Your task to perform on an android device: Show me productivity apps on the Play Store Image 0: 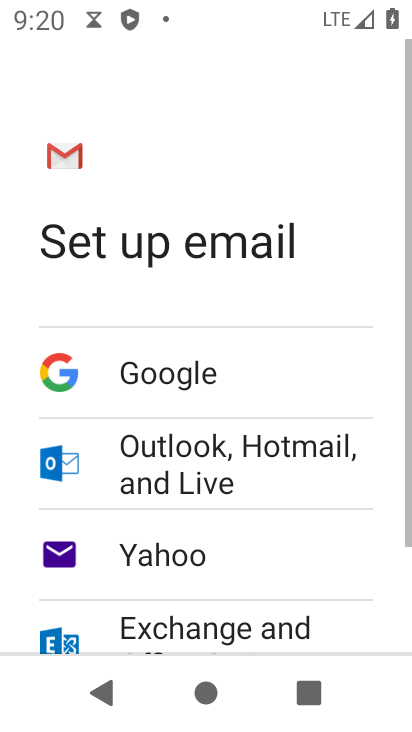
Step 0: press home button
Your task to perform on an android device: Show me productivity apps on the Play Store Image 1: 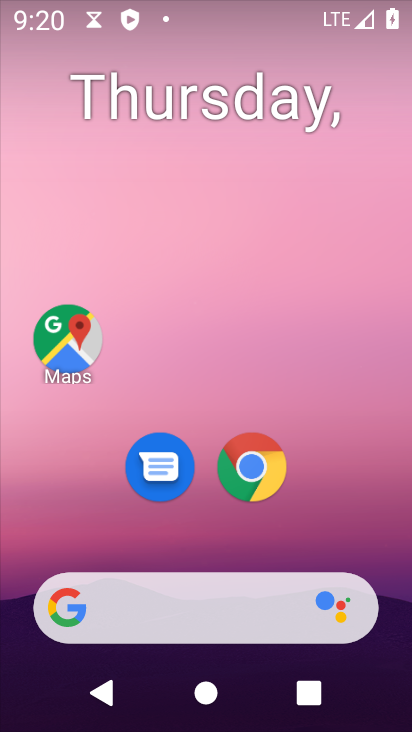
Step 1: drag from (316, 539) to (327, 55)
Your task to perform on an android device: Show me productivity apps on the Play Store Image 2: 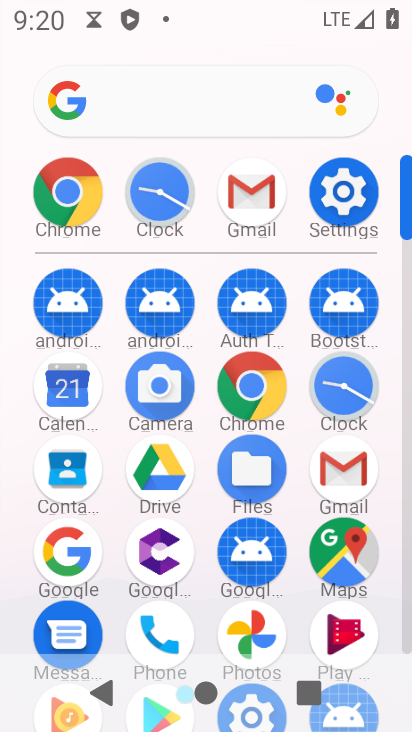
Step 2: drag from (205, 595) to (270, 380)
Your task to perform on an android device: Show me productivity apps on the Play Store Image 3: 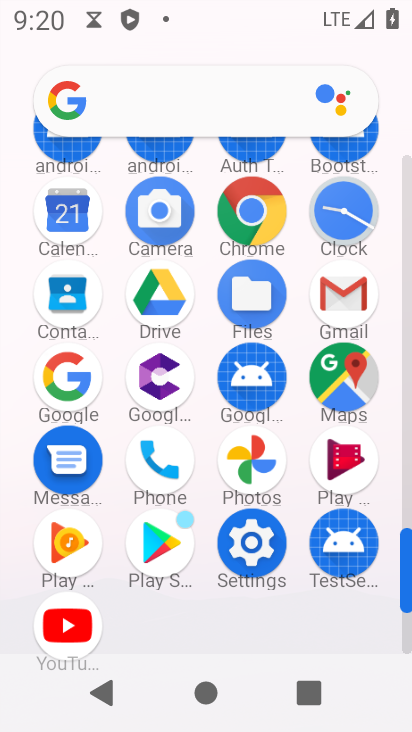
Step 3: click (165, 530)
Your task to perform on an android device: Show me productivity apps on the Play Store Image 4: 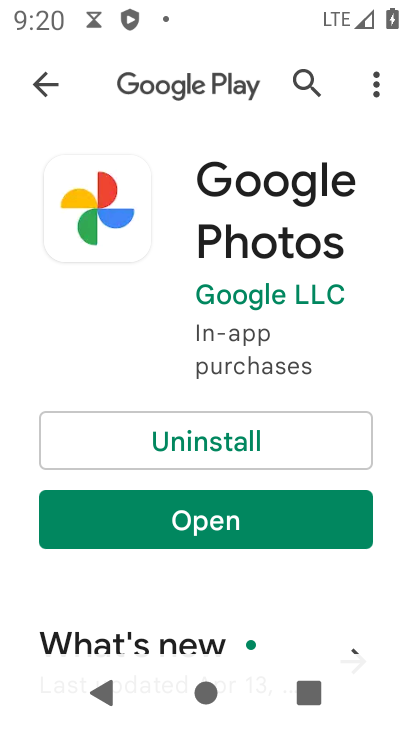
Step 4: click (33, 97)
Your task to perform on an android device: Show me productivity apps on the Play Store Image 5: 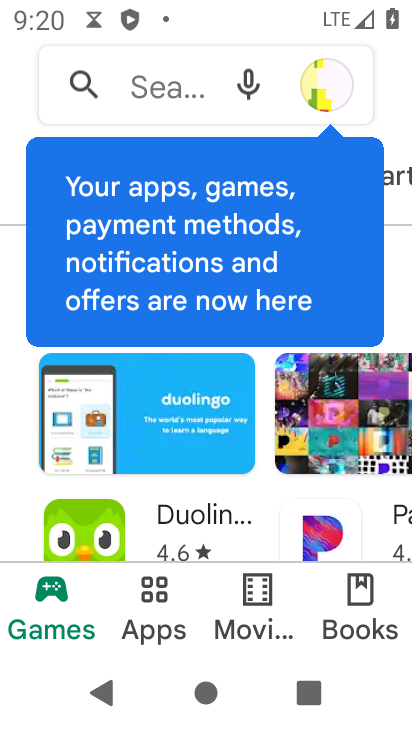
Step 5: click (133, 621)
Your task to perform on an android device: Show me productivity apps on the Play Store Image 6: 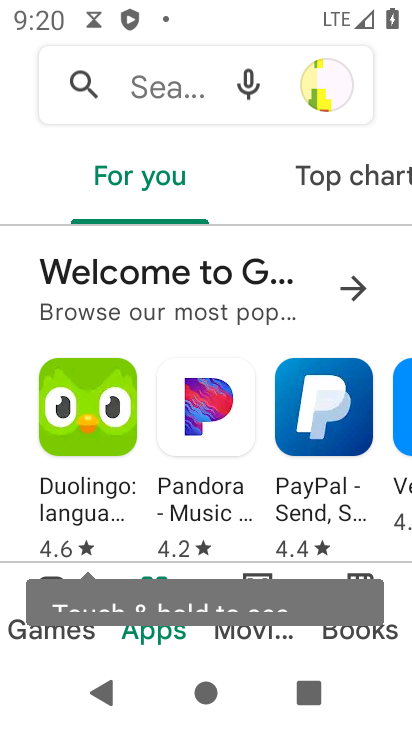
Step 6: drag from (390, 187) to (81, 195)
Your task to perform on an android device: Show me productivity apps on the Play Store Image 7: 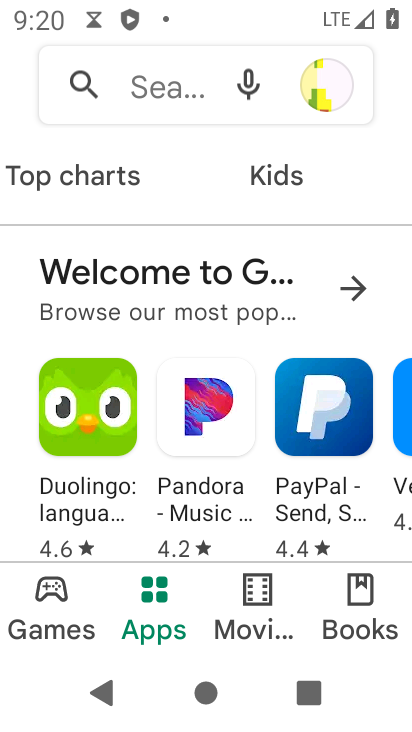
Step 7: drag from (351, 172) to (5, 151)
Your task to perform on an android device: Show me productivity apps on the Play Store Image 8: 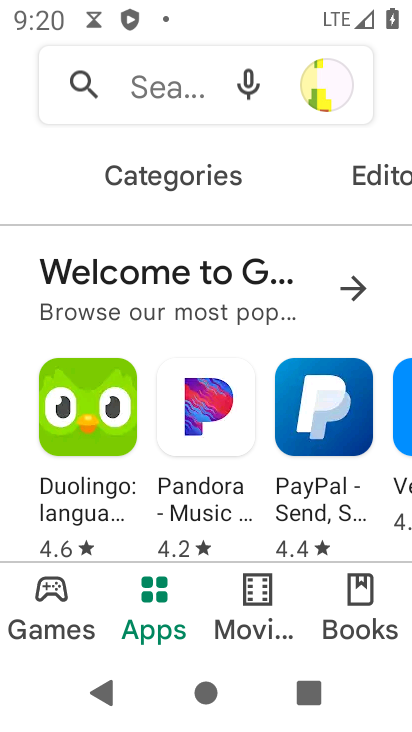
Step 8: click (170, 171)
Your task to perform on an android device: Show me productivity apps on the Play Store Image 9: 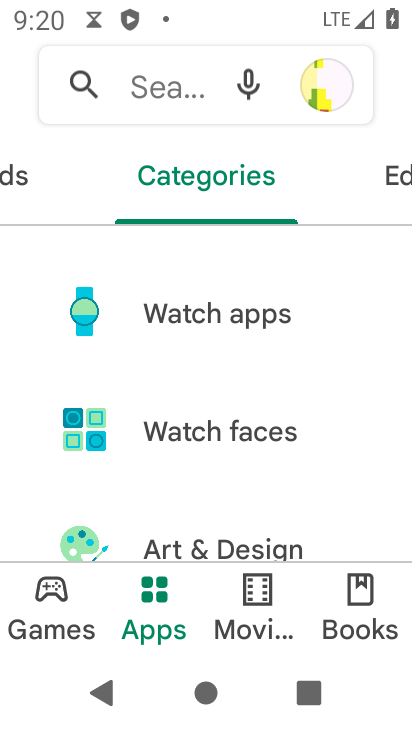
Step 9: drag from (175, 486) to (173, 375)
Your task to perform on an android device: Show me productivity apps on the Play Store Image 10: 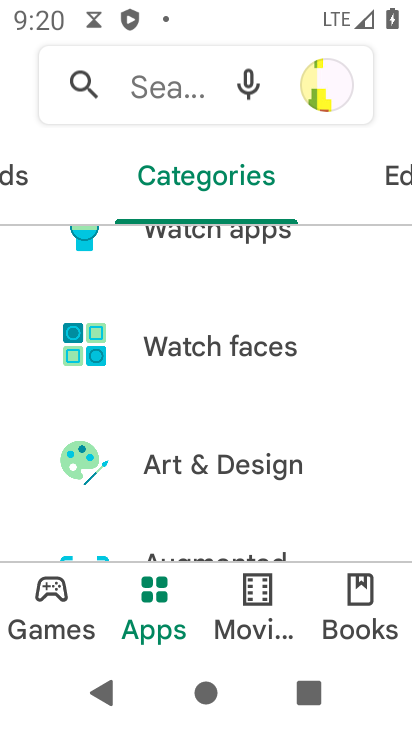
Step 10: drag from (162, 492) to (162, 409)
Your task to perform on an android device: Show me productivity apps on the Play Store Image 11: 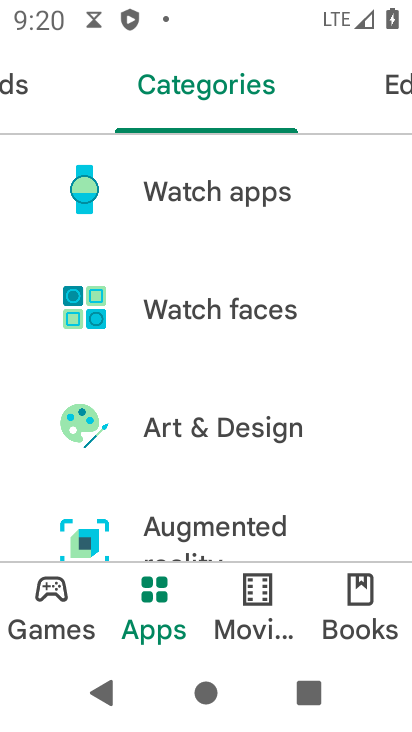
Step 11: drag from (150, 502) to (162, 404)
Your task to perform on an android device: Show me productivity apps on the Play Store Image 12: 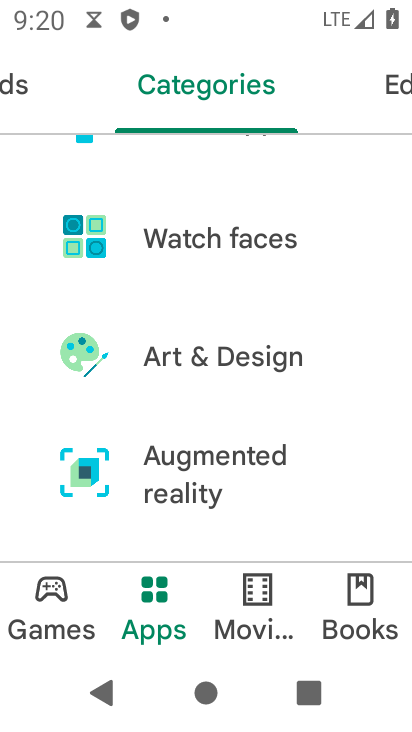
Step 12: drag from (159, 487) to (169, 407)
Your task to perform on an android device: Show me productivity apps on the Play Store Image 13: 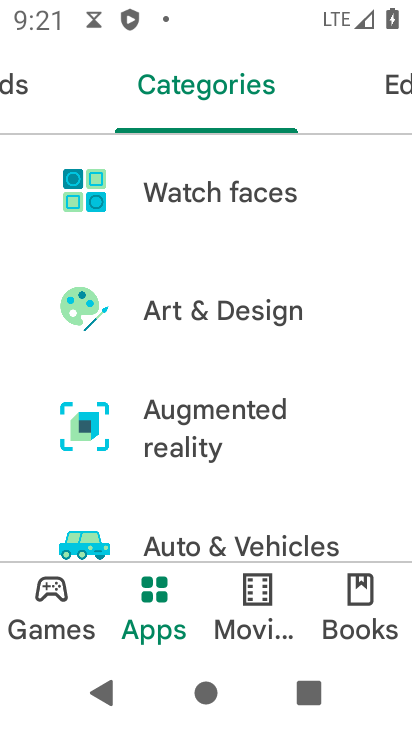
Step 13: drag from (204, 458) to (226, 346)
Your task to perform on an android device: Show me productivity apps on the Play Store Image 14: 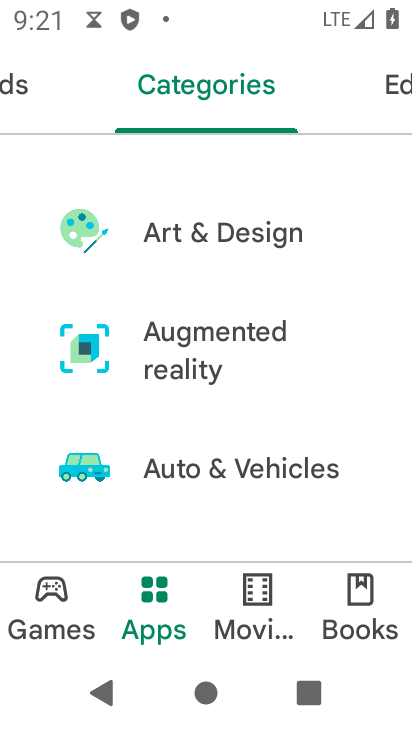
Step 14: drag from (233, 411) to (242, 320)
Your task to perform on an android device: Show me productivity apps on the Play Store Image 15: 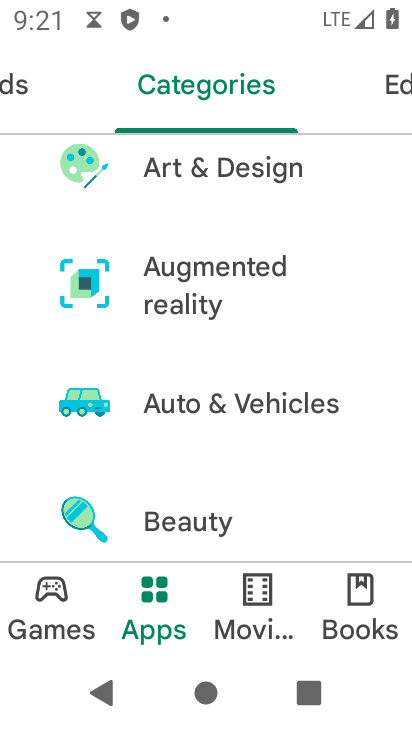
Step 15: drag from (230, 432) to (254, 324)
Your task to perform on an android device: Show me productivity apps on the Play Store Image 16: 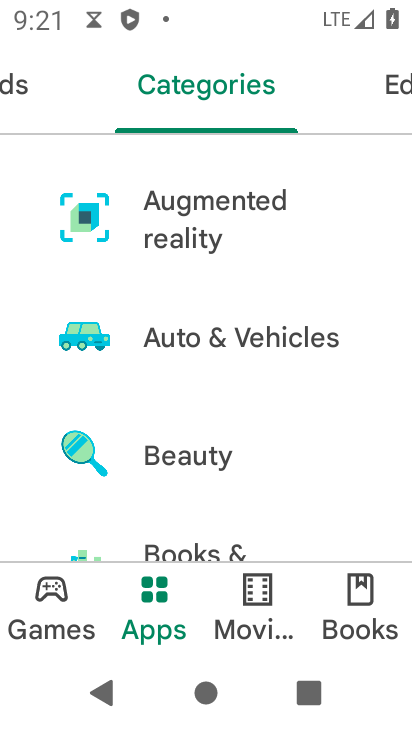
Step 16: drag from (205, 440) to (211, 360)
Your task to perform on an android device: Show me productivity apps on the Play Store Image 17: 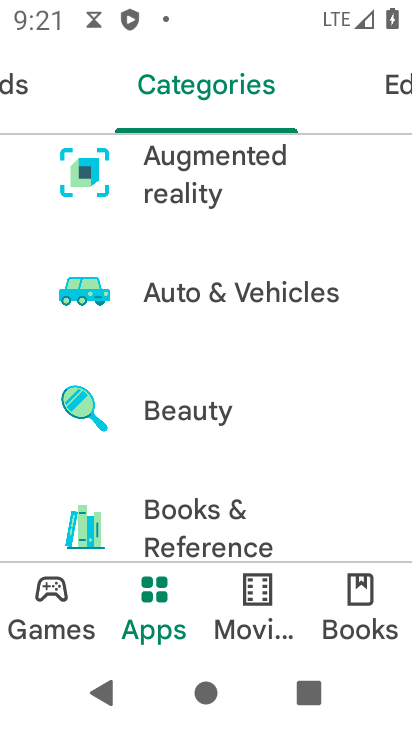
Step 17: drag from (217, 476) to (224, 386)
Your task to perform on an android device: Show me productivity apps on the Play Store Image 18: 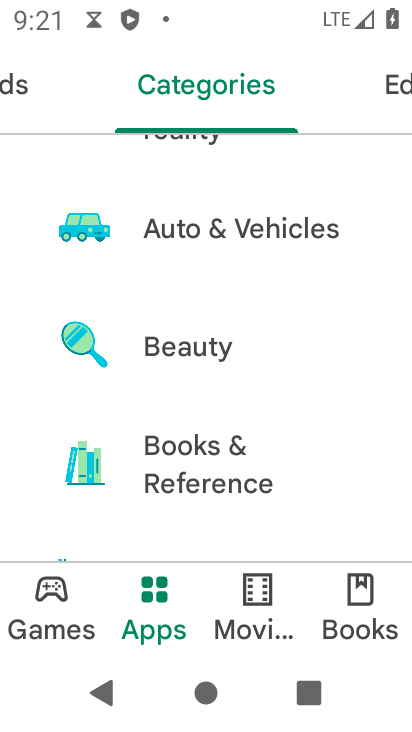
Step 18: drag from (143, 507) to (185, 332)
Your task to perform on an android device: Show me productivity apps on the Play Store Image 19: 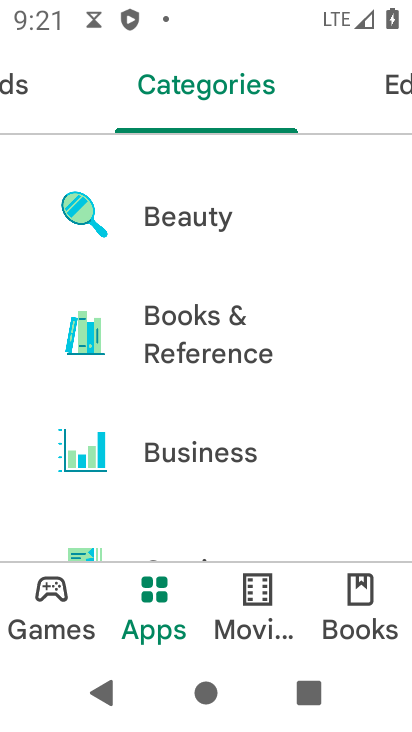
Step 19: drag from (240, 466) to (232, 302)
Your task to perform on an android device: Show me productivity apps on the Play Store Image 20: 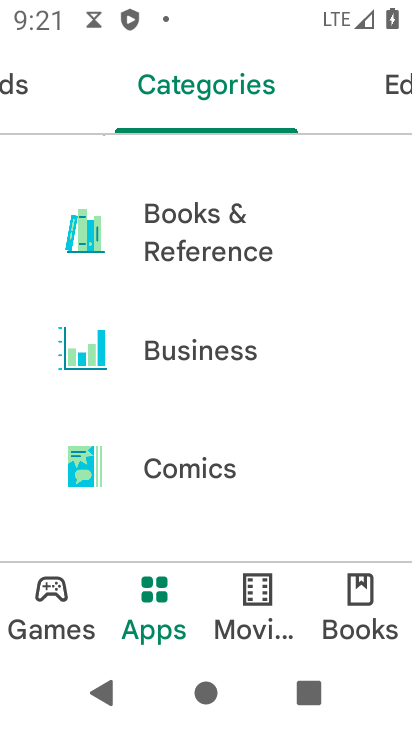
Step 20: drag from (230, 424) to (257, 314)
Your task to perform on an android device: Show me productivity apps on the Play Store Image 21: 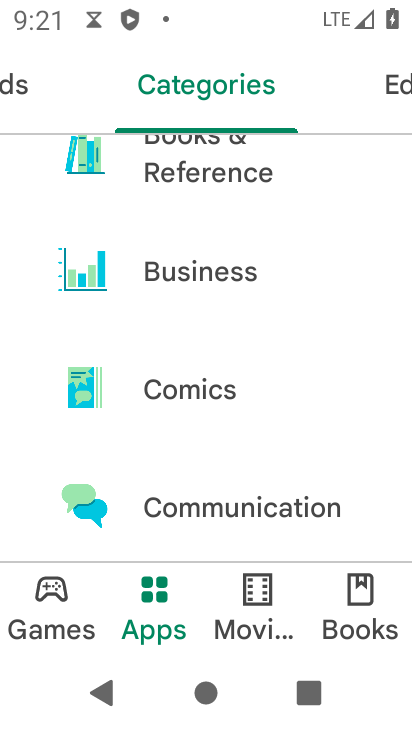
Step 21: drag from (214, 441) to (223, 334)
Your task to perform on an android device: Show me productivity apps on the Play Store Image 22: 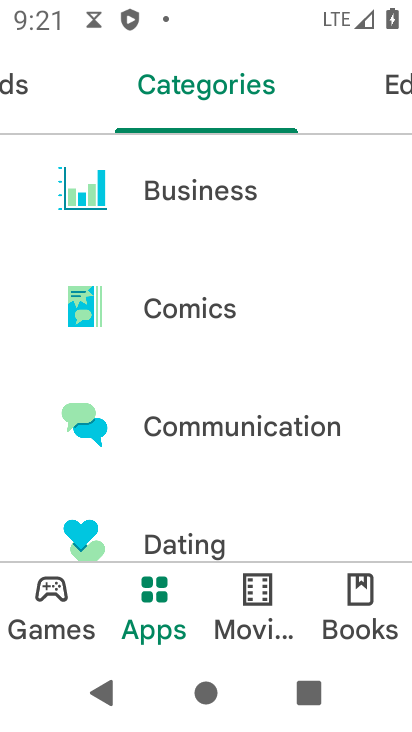
Step 22: drag from (244, 460) to (255, 350)
Your task to perform on an android device: Show me productivity apps on the Play Store Image 23: 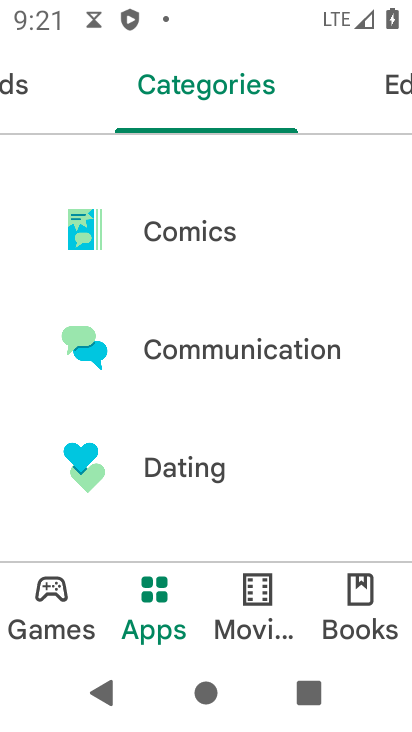
Step 23: drag from (221, 441) to (237, 342)
Your task to perform on an android device: Show me productivity apps on the Play Store Image 24: 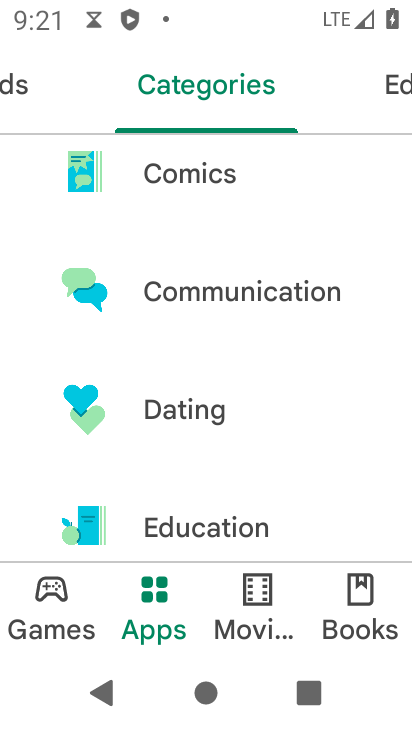
Step 24: drag from (201, 435) to (207, 347)
Your task to perform on an android device: Show me productivity apps on the Play Store Image 25: 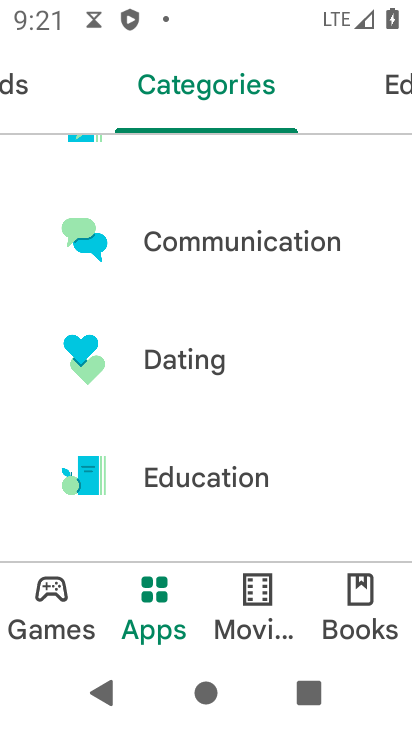
Step 25: drag from (191, 429) to (213, 347)
Your task to perform on an android device: Show me productivity apps on the Play Store Image 26: 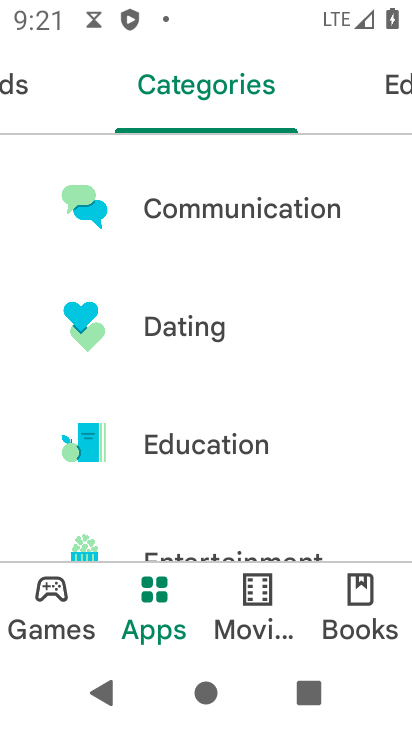
Step 26: drag from (191, 434) to (202, 351)
Your task to perform on an android device: Show me productivity apps on the Play Store Image 27: 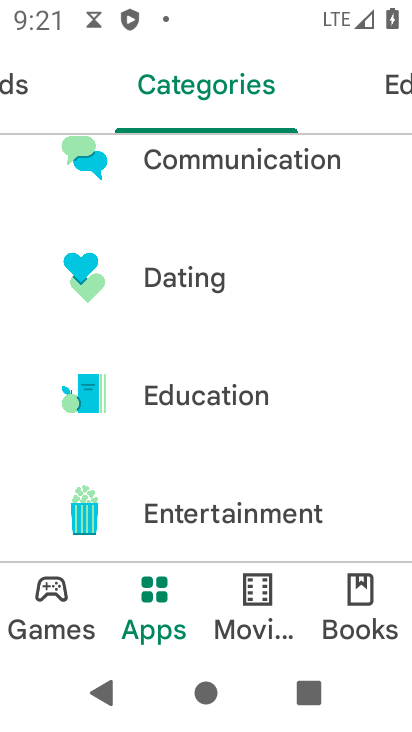
Step 27: drag from (201, 431) to (226, 353)
Your task to perform on an android device: Show me productivity apps on the Play Store Image 28: 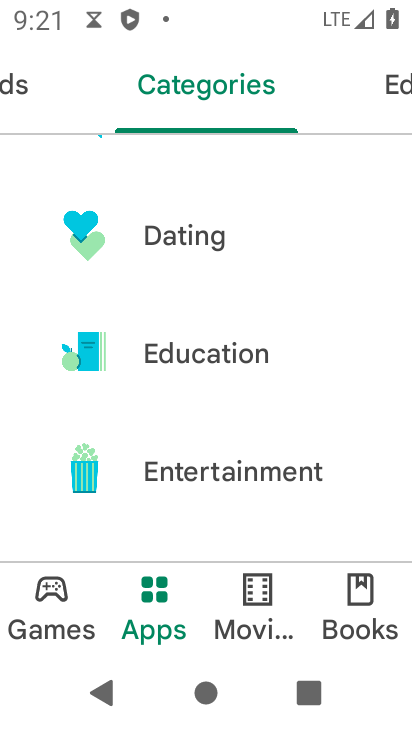
Step 28: drag from (218, 414) to (224, 354)
Your task to perform on an android device: Show me productivity apps on the Play Store Image 29: 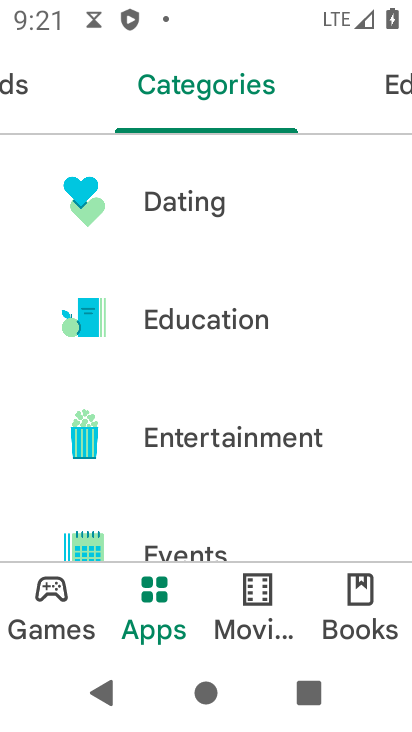
Step 29: drag from (201, 424) to (222, 331)
Your task to perform on an android device: Show me productivity apps on the Play Store Image 30: 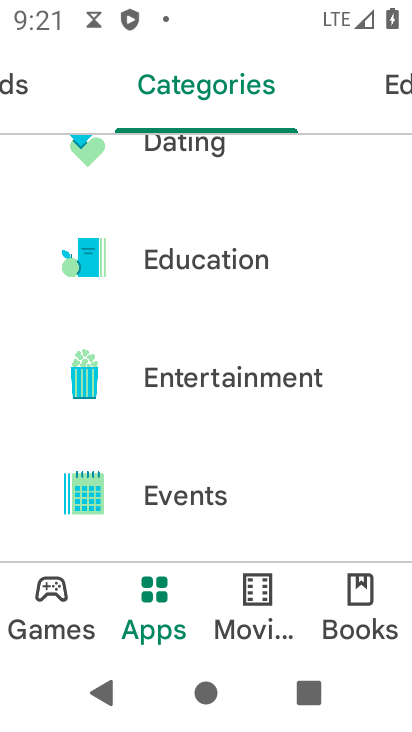
Step 30: drag from (195, 420) to (214, 333)
Your task to perform on an android device: Show me productivity apps on the Play Store Image 31: 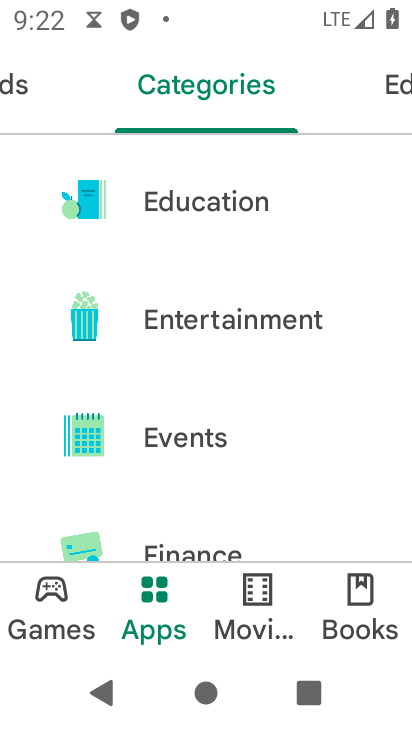
Step 31: drag from (196, 422) to (222, 329)
Your task to perform on an android device: Show me productivity apps on the Play Store Image 32: 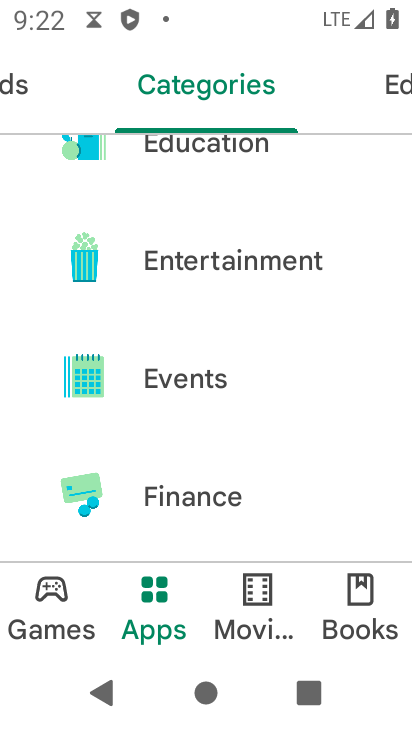
Step 32: drag from (214, 416) to (236, 342)
Your task to perform on an android device: Show me productivity apps on the Play Store Image 33: 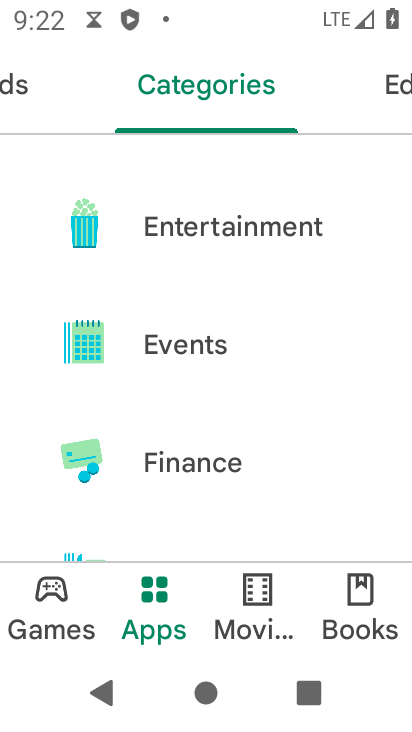
Step 33: drag from (220, 429) to (235, 344)
Your task to perform on an android device: Show me productivity apps on the Play Store Image 34: 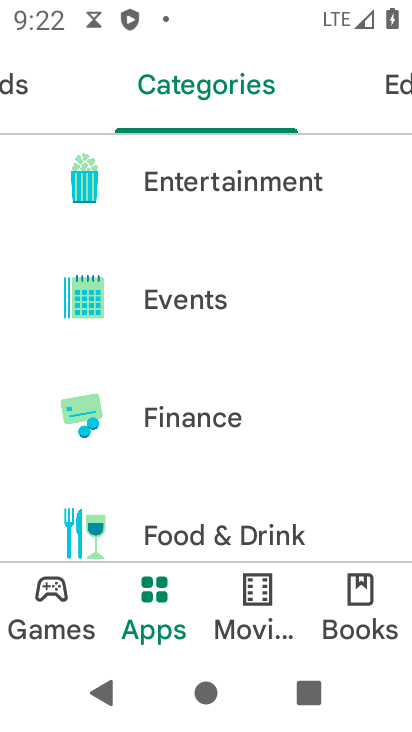
Step 34: drag from (209, 445) to (228, 356)
Your task to perform on an android device: Show me productivity apps on the Play Store Image 35: 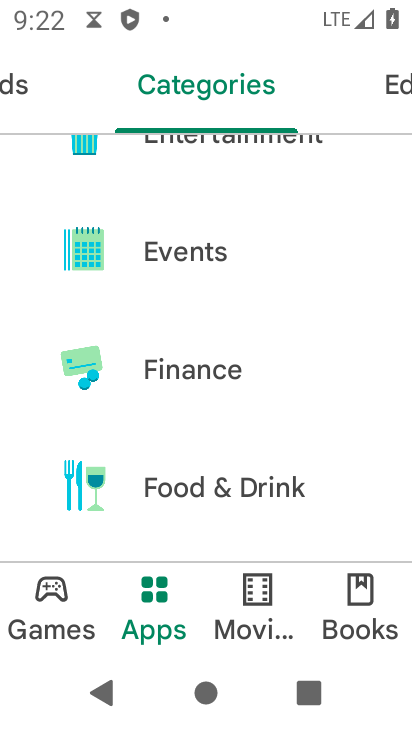
Step 35: drag from (213, 441) to (233, 360)
Your task to perform on an android device: Show me productivity apps on the Play Store Image 36: 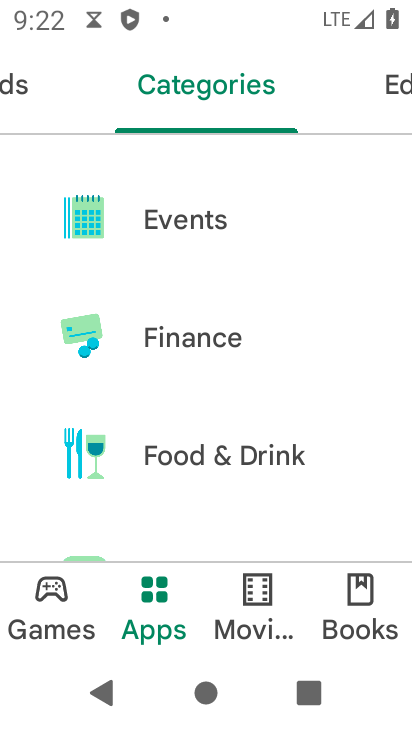
Step 36: drag from (208, 445) to (230, 357)
Your task to perform on an android device: Show me productivity apps on the Play Store Image 37: 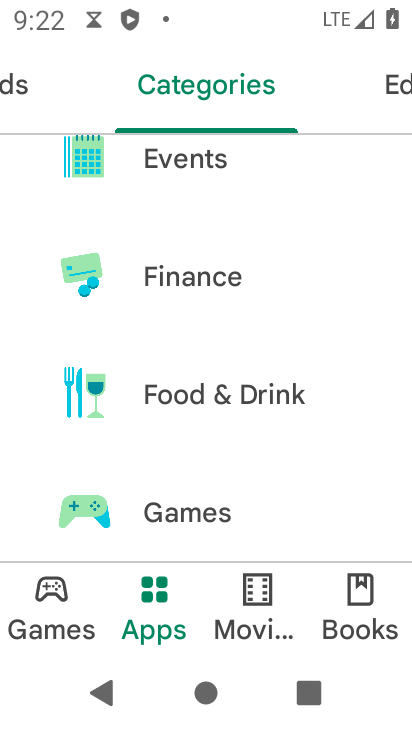
Step 37: drag from (209, 456) to (236, 356)
Your task to perform on an android device: Show me productivity apps on the Play Store Image 38: 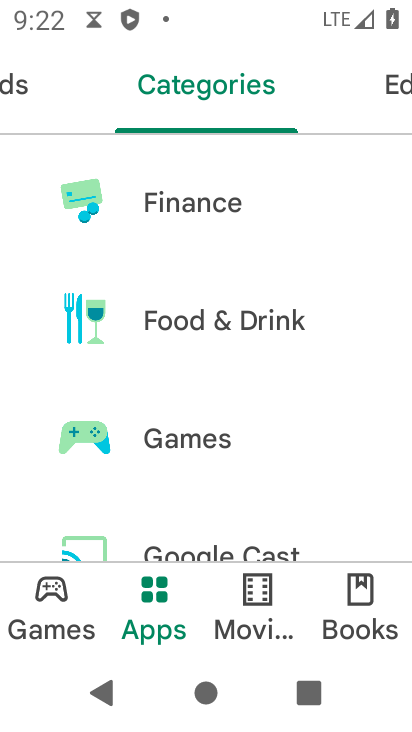
Step 38: drag from (220, 460) to (243, 371)
Your task to perform on an android device: Show me productivity apps on the Play Store Image 39: 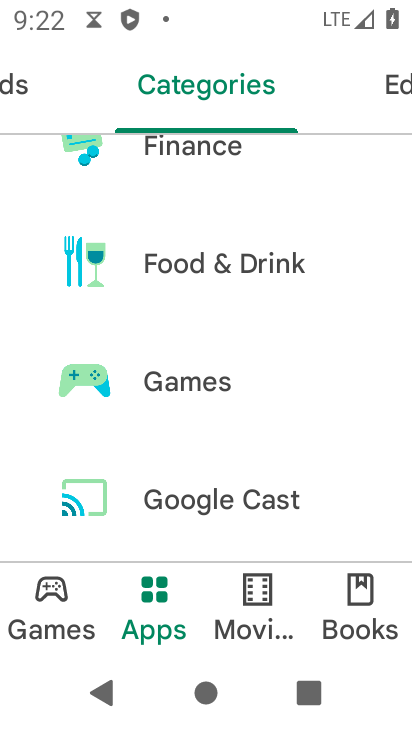
Step 39: drag from (219, 457) to (233, 393)
Your task to perform on an android device: Show me productivity apps on the Play Store Image 40: 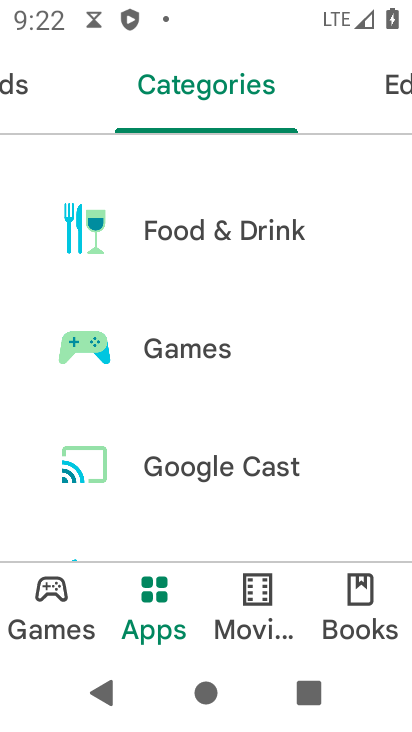
Step 40: drag from (218, 460) to (231, 396)
Your task to perform on an android device: Show me productivity apps on the Play Store Image 41: 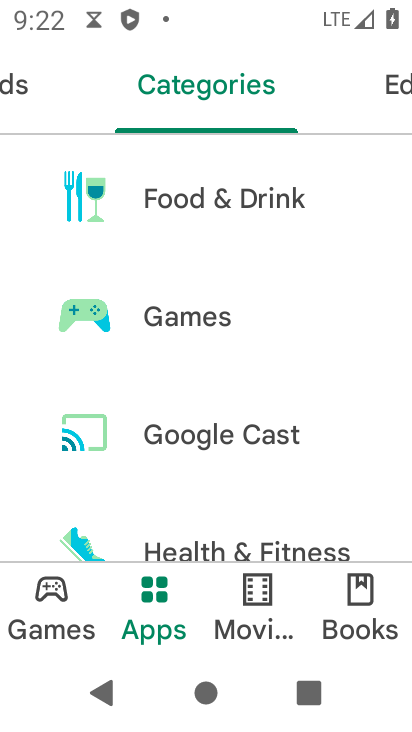
Step 41: drag from (229, 479) to (247, 376)
Your task to perform on an android device: Show me productivity apps on the Play Store Image 42: 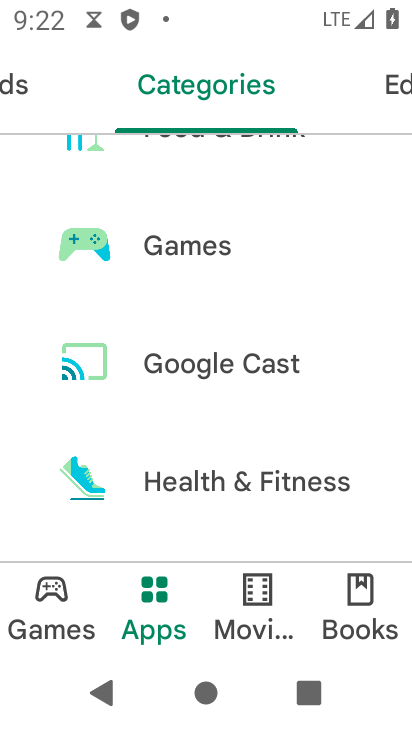
Step 42: drag from (240, 469) to (251, 388)
Your task to perform on an android device: Show me productivity apps on the Play Store Image 43: 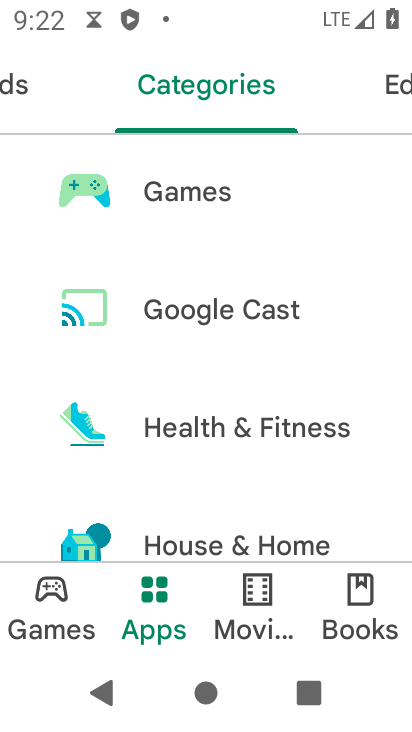
Step 43: drag from (241, 464) to (250, 366)
Your task to perform on an android device: Show me productivity apps on the Play Store Image 44: 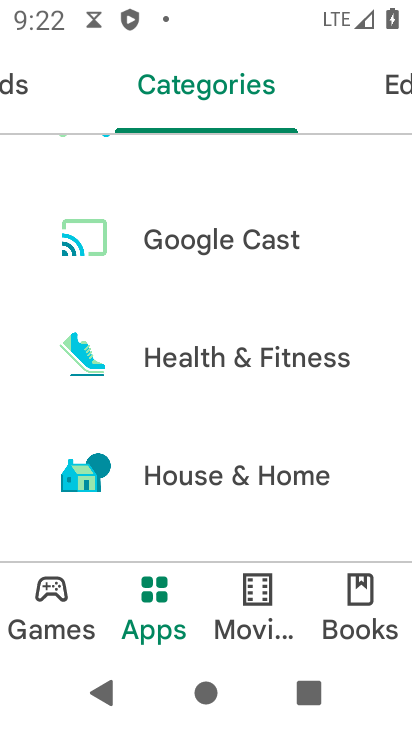
Step 44: drag from (229, 443) to (235, 367)
Your task to perform on an android device: Show me productivity apps on the Play Store Image 45: 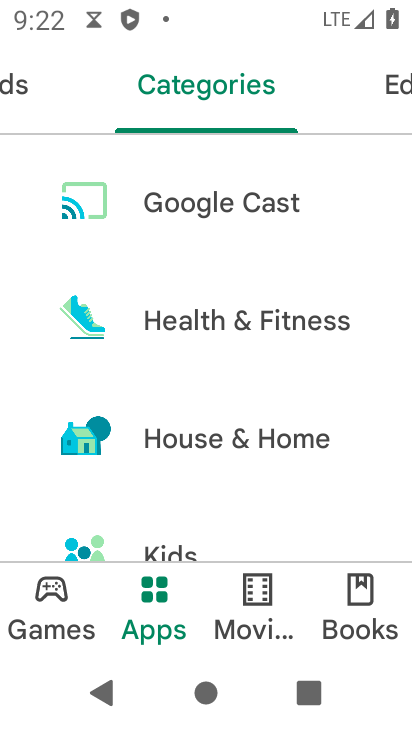
Step 45: drag from (210, 481) to (234, 375)
Your task to perform on an android device: Show me productivity apps on the Play Store Image 46: 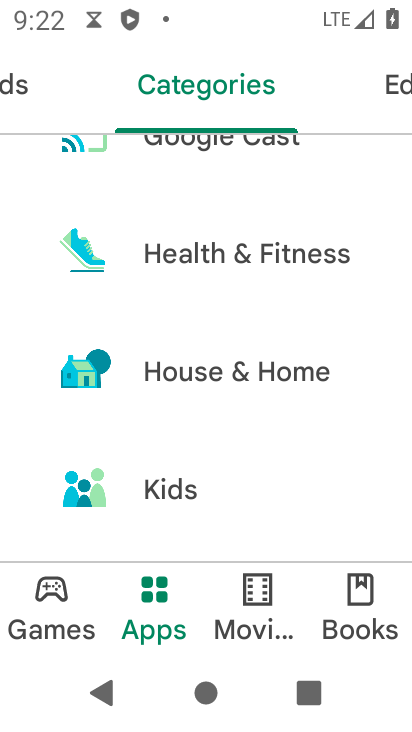
Step 46: drag from (215, 488) to (227, 412)
Your task to perform on an android device: Show me productivity apps on the Play Store Image 47: 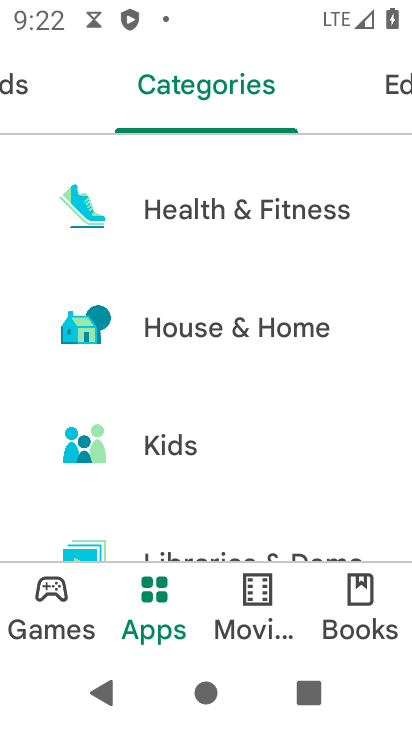
Step 47: drag from (215, 489) to (221, 424)
Your task to perform on an android device: Show me productivity apps on the Play Store Image 48: 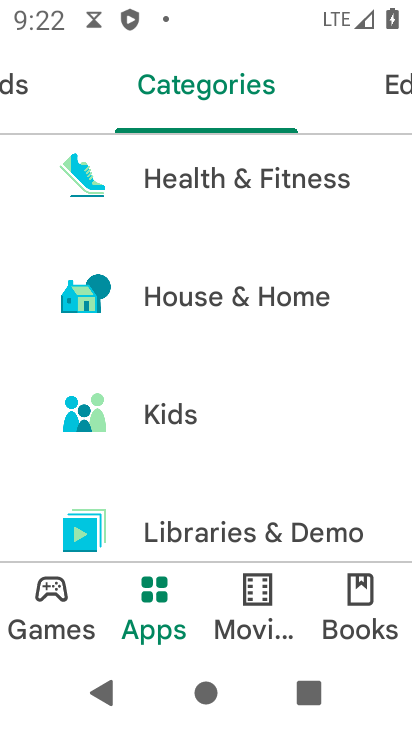
Step 48: drag from (215, 481) to (214, 415)
Your task to perform on an android device: Show me productivity apps on the Play Store Image 49: 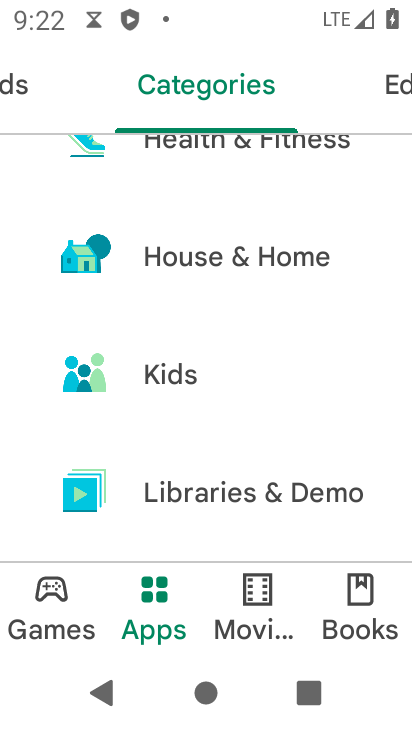
Step 49: drag from (201, 496) to (219, 421)
Your task to perform on an android device: Show me productivity apps on the Play Store Image 50: 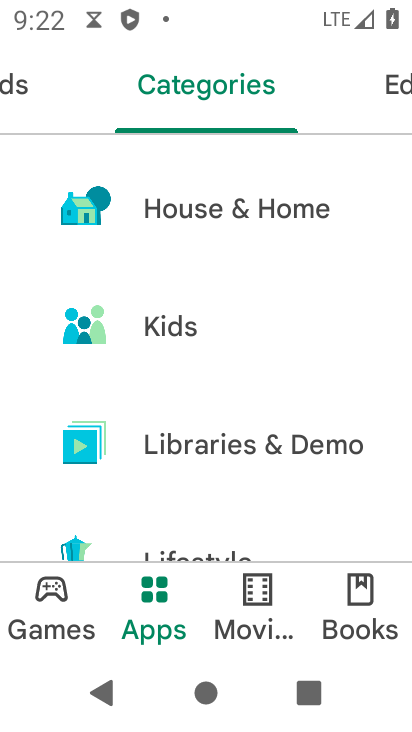
Step 50: drag from (225, 520) to (252, 427)
Your task to perform on an android device: Show me productivity apps on the Play Store Image 51: 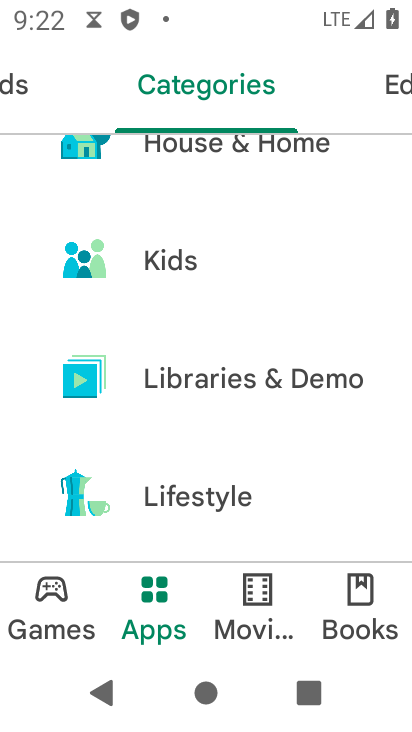
Step 51: drag from (224, 500) to (262, 368)
Your task to perform on an android device: Show me productivity apps on the Play Store Image 52: 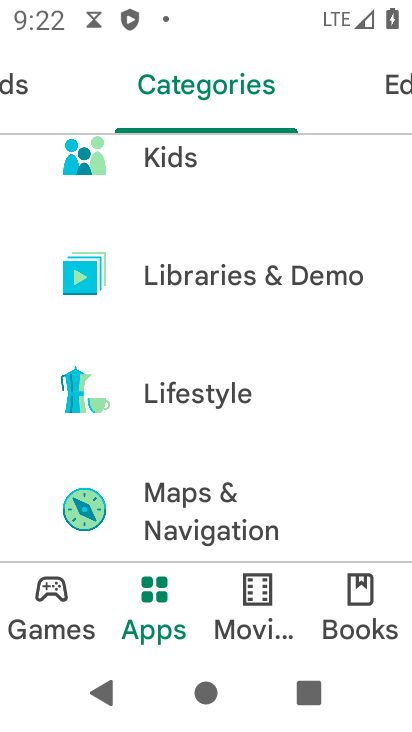
Step 52: drag from (251, 495) to (285, 349)
Your task to perform on an android device: Show me productivity apps on the Play Store Image 53: 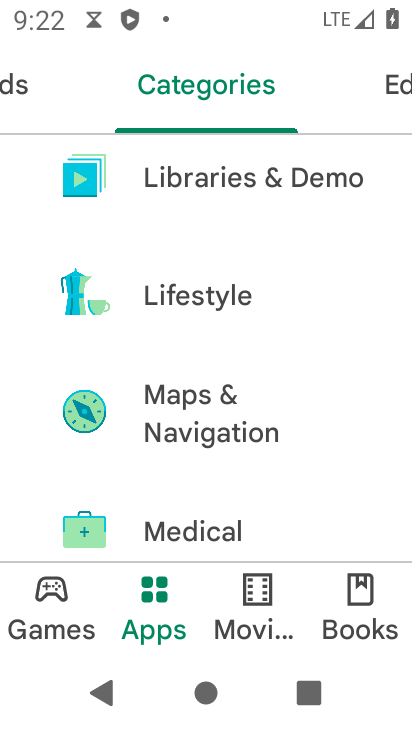
Step 53: drag from (229, 493) to (270, 321)
Your task to perform on an android device: Show me productivity apps on the Play Store Image 54: 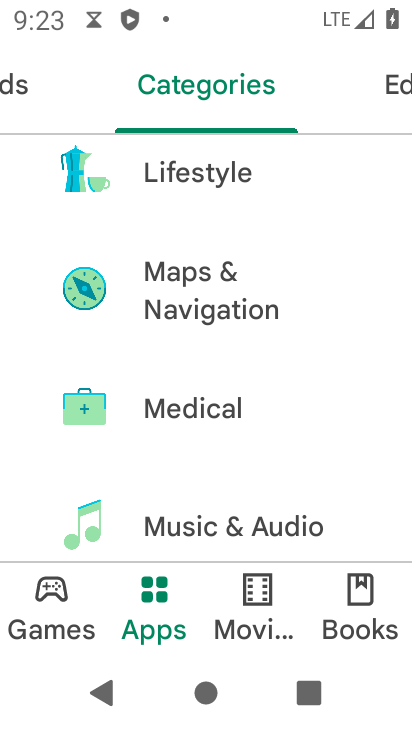
Step 54: drag from (244, 487) to (285, 346)
Your task to perform on an android device: Show me productivity apps on the Play Store Image 55: 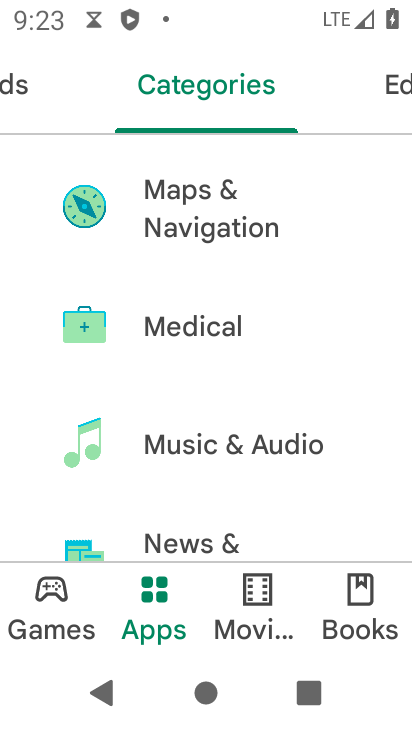
Step 55: drag from (223, 488) to (234, 378)
Your task to perform on an android device: Show me productivity apps on the Play Store Image 56: 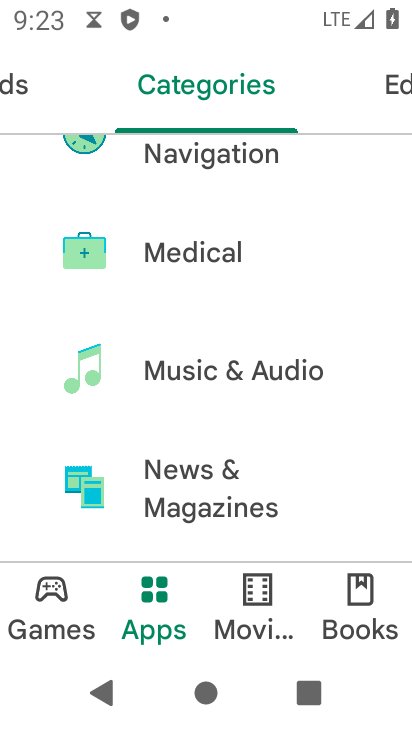
Step 56: drag from (218, 470) to (225, 381)
Your task to perform on an android device: Show me productivity apps on the Play Store Image 57: 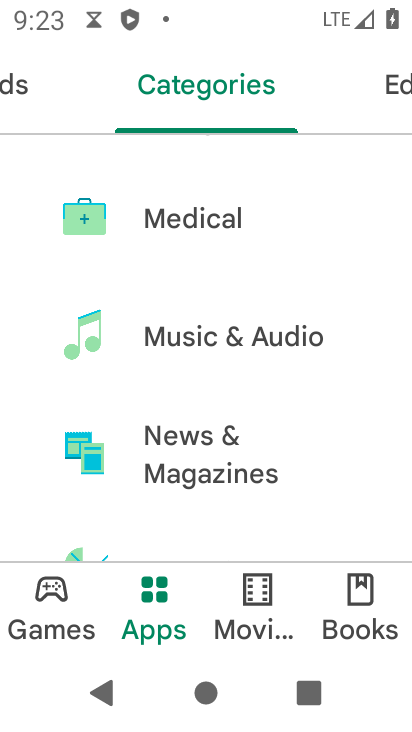
Step 57: drag from (212, 478) to (234, 351)
Your task to perform on an android device: Show me productivity apps on the Play Store Image 58: 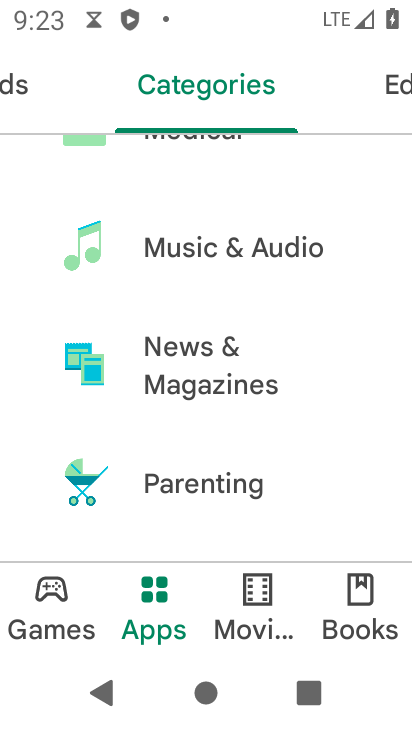
Step 58: drag from (214, 475) to (226, 377)
Your task to perform on an android device: Show me productivity apps on the Play Store Image 59: 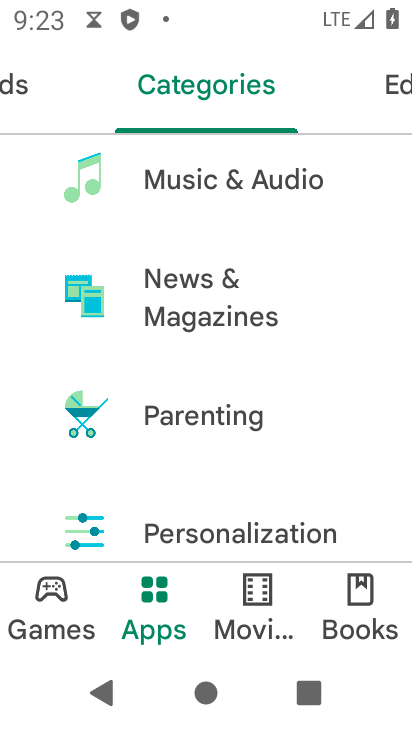
Step 59: drag from (187, 503) to (211, 374)
Your task to perform on an android device: Show me productivity apps on the Play Store Image 60: 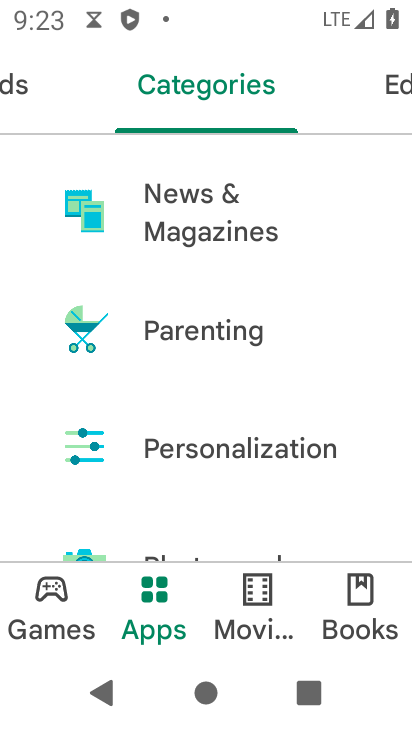
Step 60: drag from (178, 489) to (222, 347)
Your task to perform on an android device: Show me productivity apps on the Play Store Image 61: 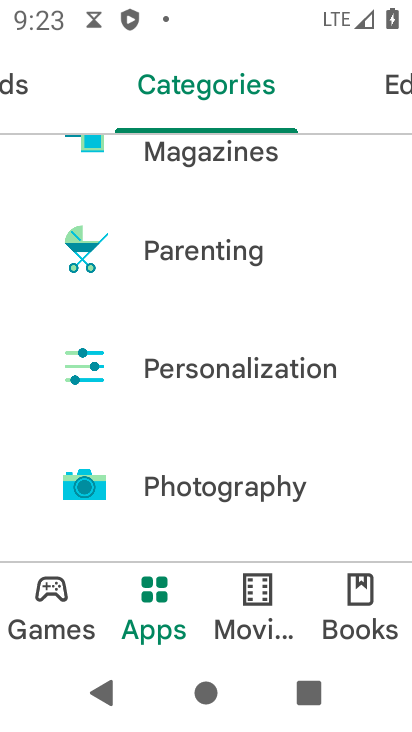
Step 61: drag from (203, 480) to (229, 377)
Your task to perform on an android device: Show me productivity apps on the Play Store Image 62: 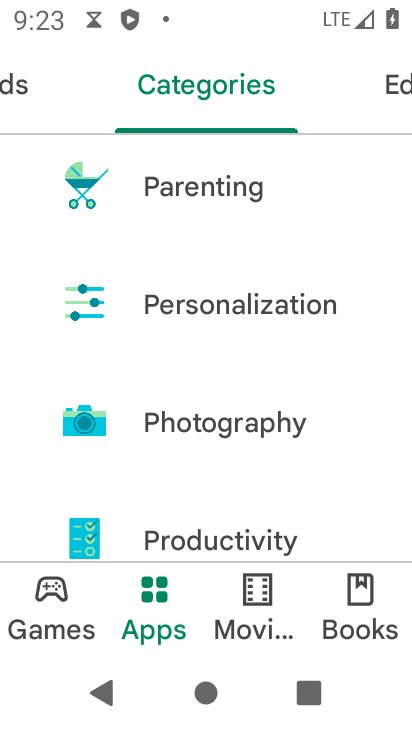
Step 62: click (194, 528)
Your task to perform on an android device: Show me productivity apps on the Play Store Image 63: 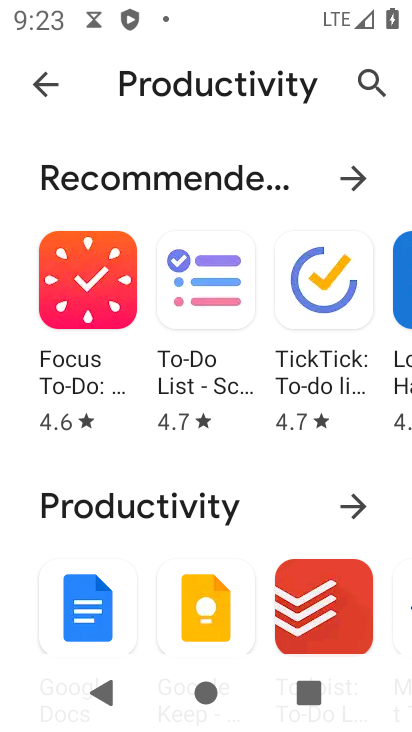
Step 63: task complete